Your task to perform on an android device: allow notifications from all sites in the chrome app Image 0: 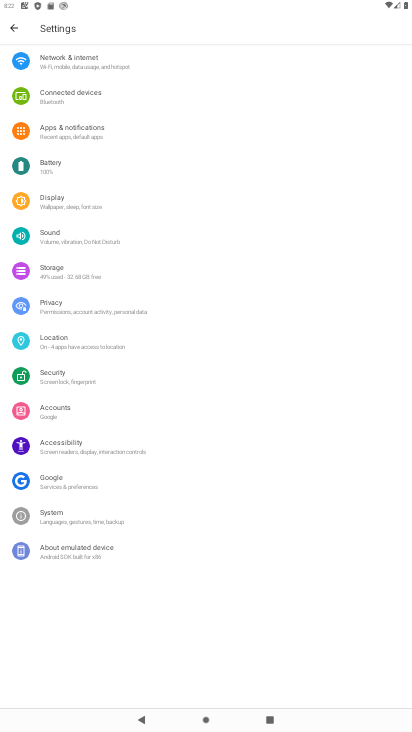
Step 0: task complete